Your task to perform on an android device: turn off priority inbox in the gmail app Image 0: 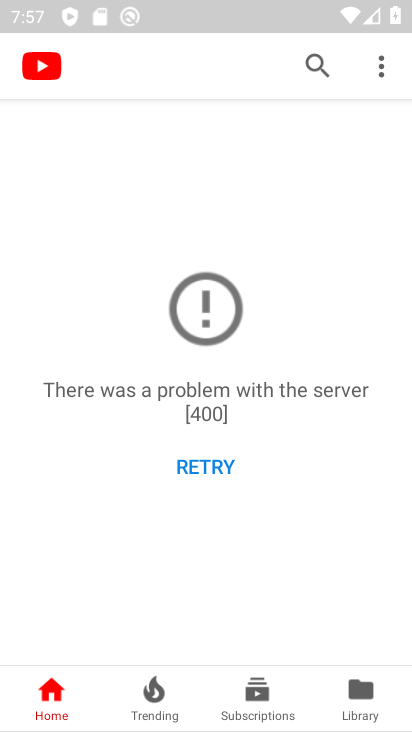
Step 0: press back button
Your task to perform on an android device: turn off priority inbox in the gmail app Image 1: 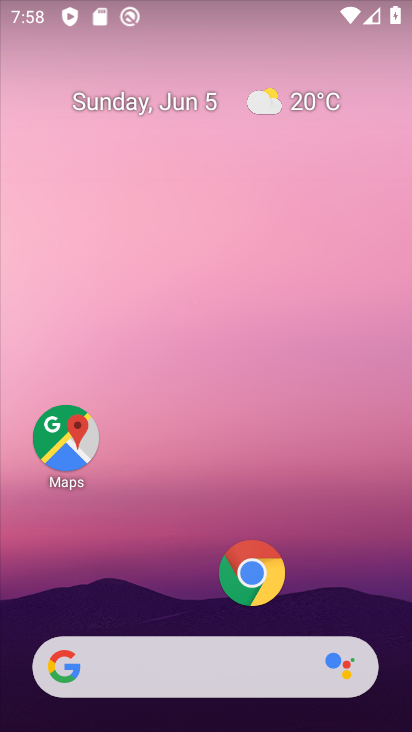
Step 1: drag from (196, 624) to (197, 162)
Your task to perform on an android device: turn off priority inbox in the gmail app Image 2: 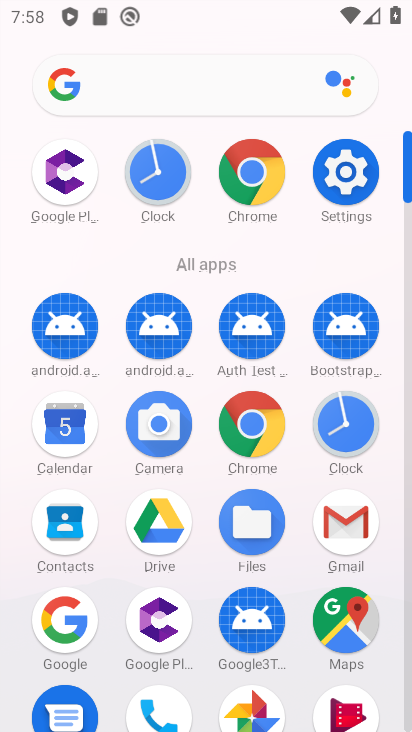
Step 2: click (362, 522)
Your task to perform on an android device: turn off priority inbox in the gmail app Image 3: 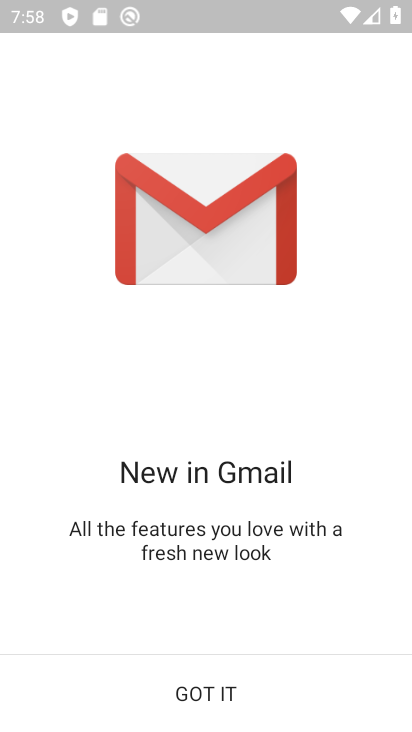
Step 3: click (194, 668)
Your task to perform on an android device: turn off priority inbox in the gmail app Image 4: 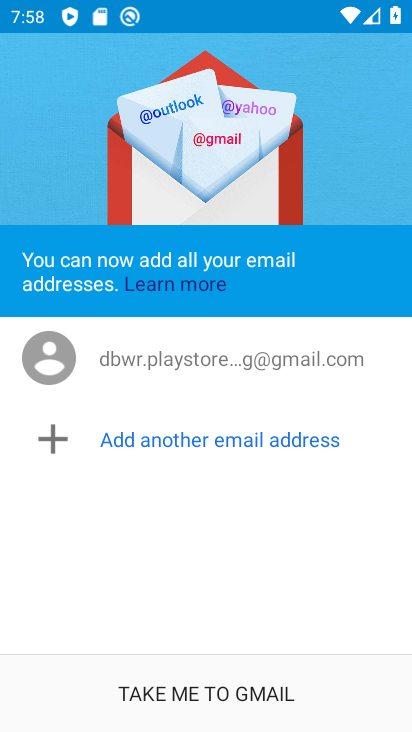
Step 4: click (194, 668)
Your task to perform on an android device: turn off priority inbox in the gmail app Image 5: 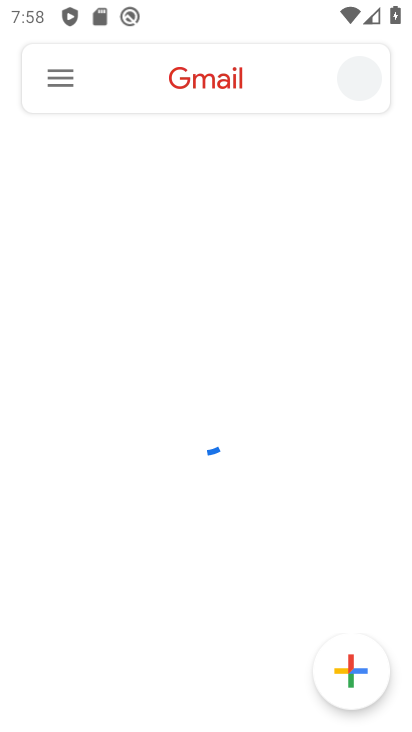
Step 5: click (57, 87)
Your task to perform on an android device: turn off priority inbox in the gmail app Image 6: 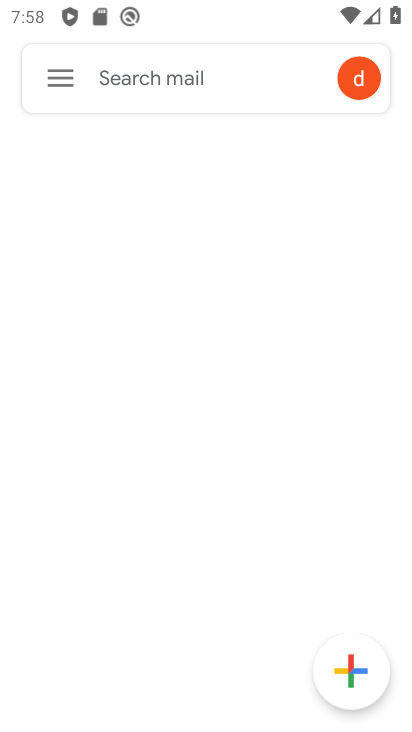
Step 6: click (60, 85)
Your task to perform on an android device: turn off priority inbox in the gmail app Image 7: 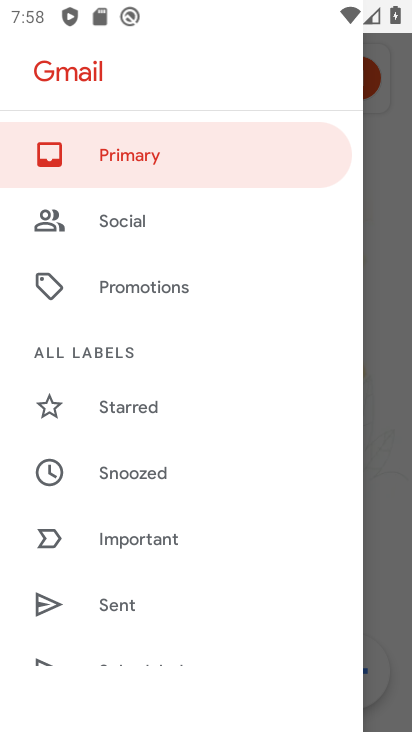
Step 7: drag from (110, 589) to (89, 141)
Your task to perform on an android device: turn off priority inbox in the gmail app Image 8: 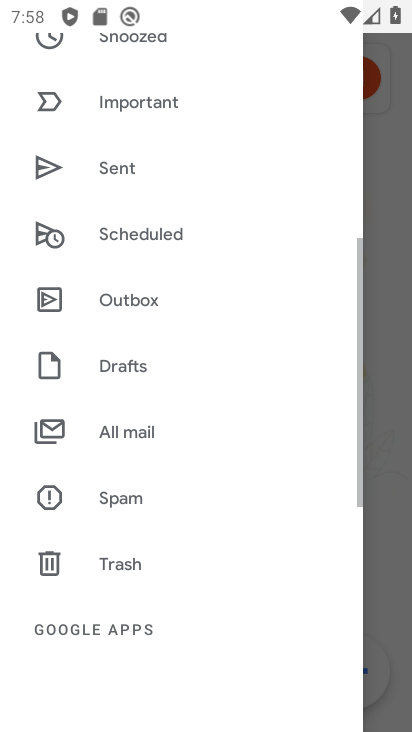
Step 8: drag from (167, 577) to (203, 140)
Your task to perform on an android device: turn off priority inbox in the gmail app Image 9: 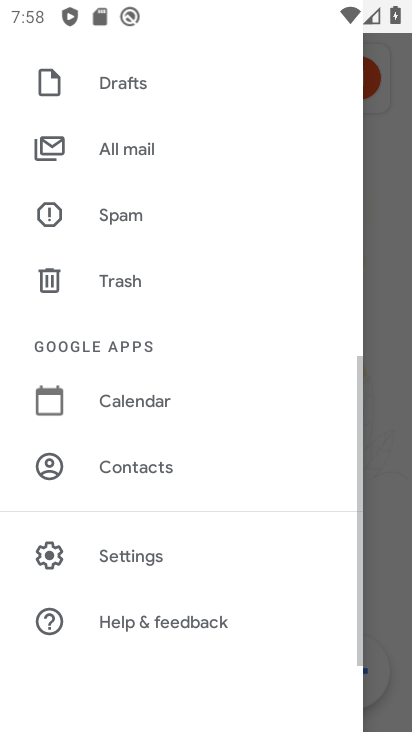
Step 9: click (124, 551)
Your task to perform on an android device: turn off priority inbox in the gmail app Image 10: 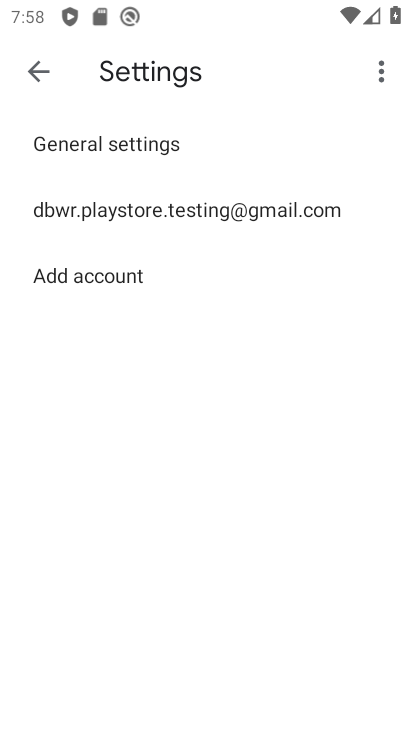
Step 10: click (148, 218)
Your task to perform on an android device: turn off priority inbox in the gmail app Image 11: 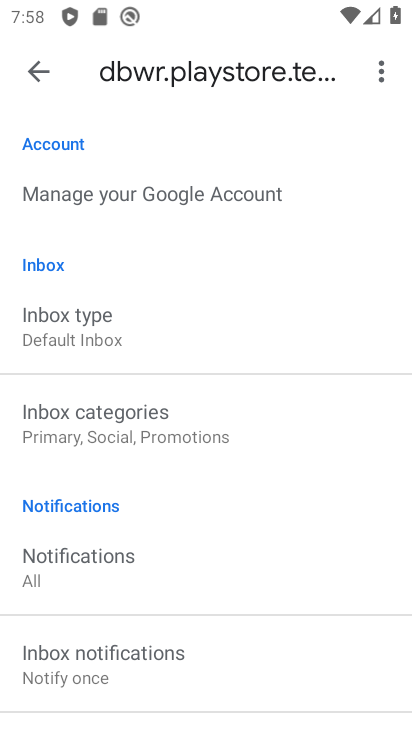
Step 11: click (89, 313)
Your task to perform on an android device: turn off priority inbox in the gmail app Image 12: 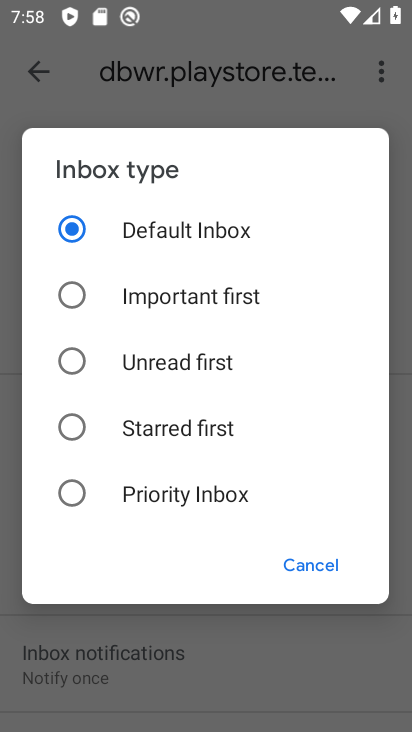
Step 12: task complete